Your task to perform on an android device: search for starred emails in the gmail app Image 0: 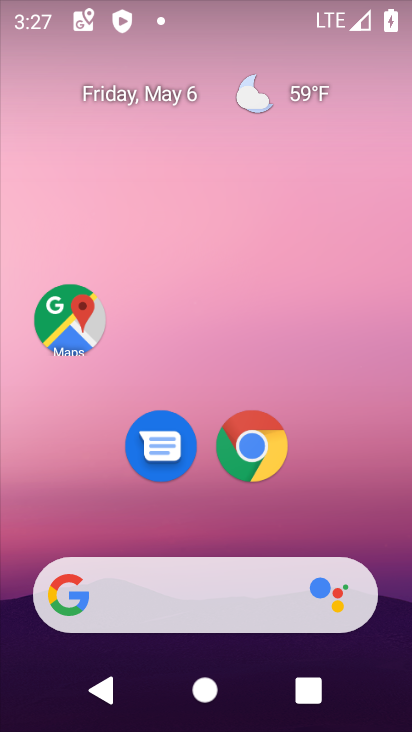
Step 0: drag from (307, 516) to (279, 190)
Your task to perform on an android device: search for starred emails in the gmail app Image 1: 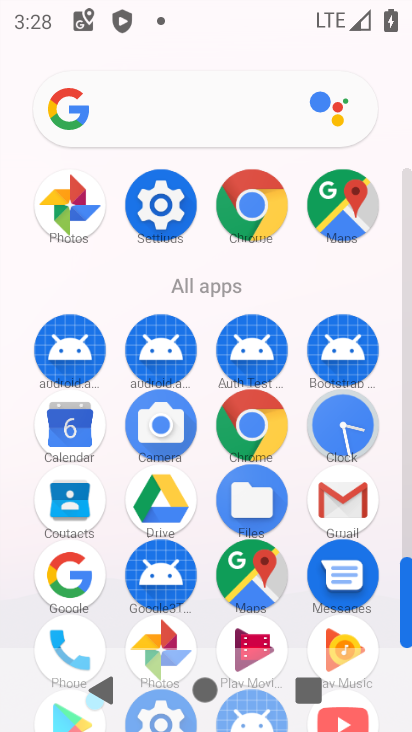
Step 1: click (331, 517)
Your task to perform on an android device: search for starred emails in the gmail app Image 2: 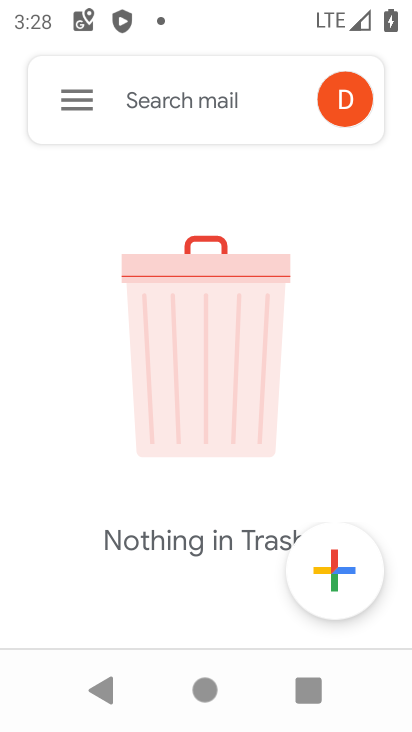
Step 2: click (82, 96)
Your task to perform on an android device: search for starred emails in the gmail app Image 3: 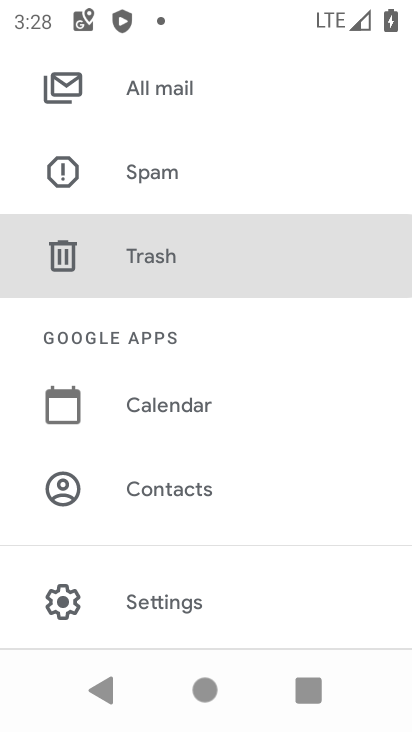
Step 3: drag from (201, 186) to (235, 554)
Your task to perform on an android device: search for starred emails in the gmail app Image 4: 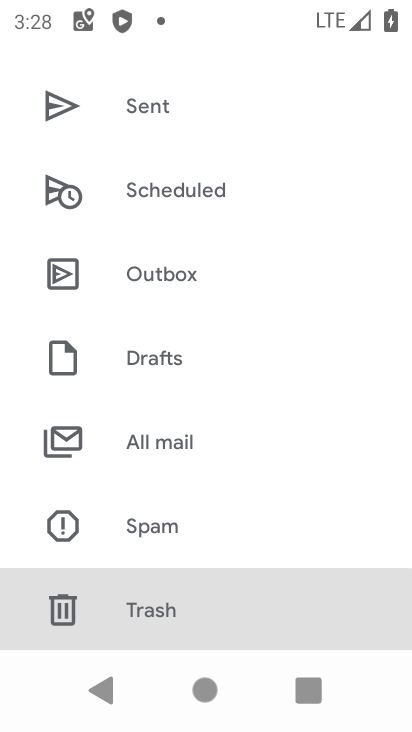
Step 4: drag from (241, 179) to (197, 590)
Your task to perform on an android device: search for starred emails in the gmail app Image 5: 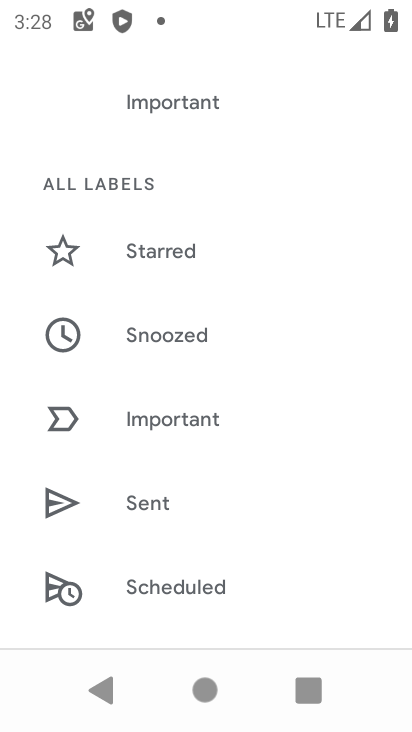
Step 5: click (198, 249)
Your task to perform on an android device: search for starred emails in the gmail app Image 6: 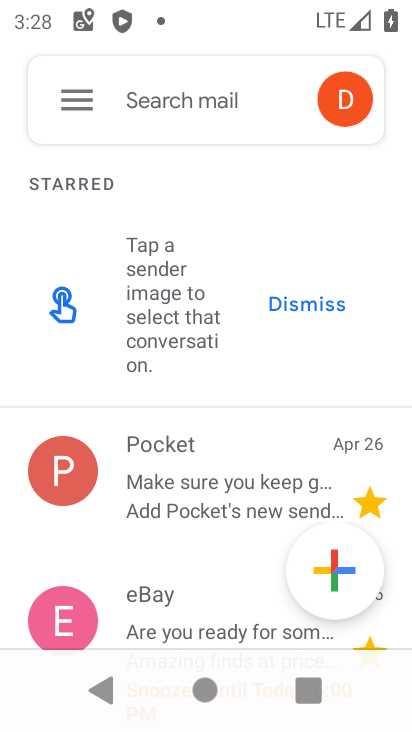
Step 6: task complete